Your task to perform on an android device: delete the emails in spam in the gmail app Image 0: 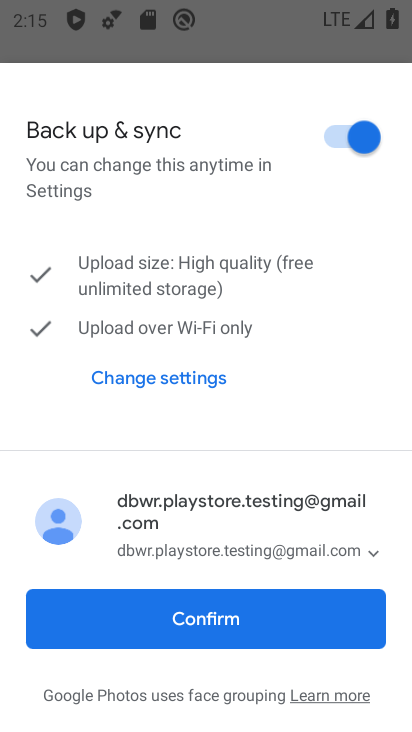
Step 0: press back button
Your task to perform on an android device: delete the emails in spam in the gmail app Image 1: 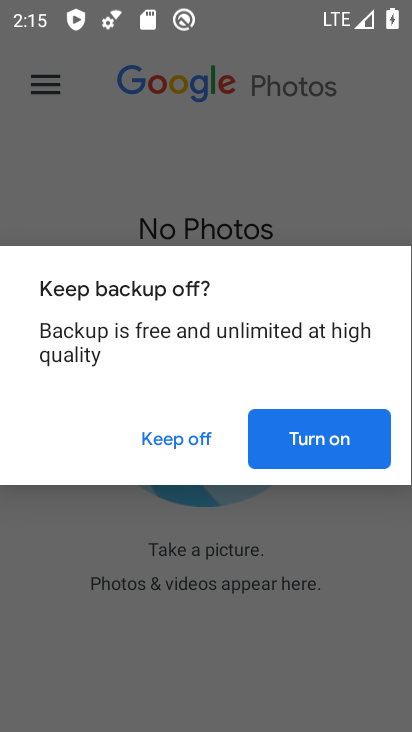
Step 1: press home button
Your task to perform on an android device: delete the emails in spam in the gmail app Image 2: 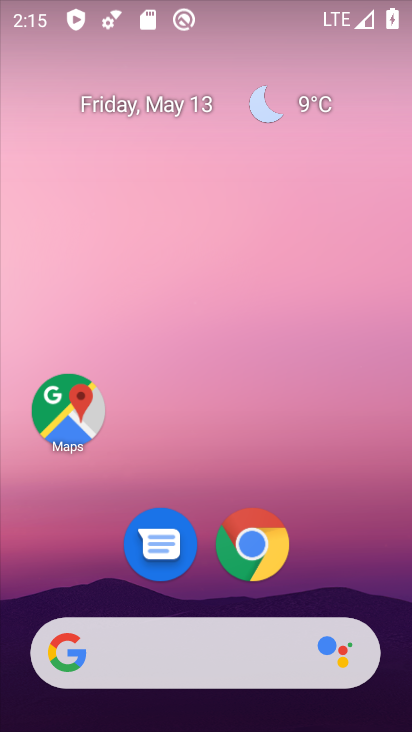
Step 2: drag from (61, 626) to (213, 74)
Your task to perform on an android device: delete the emails in spam in the gmail app Image 3: 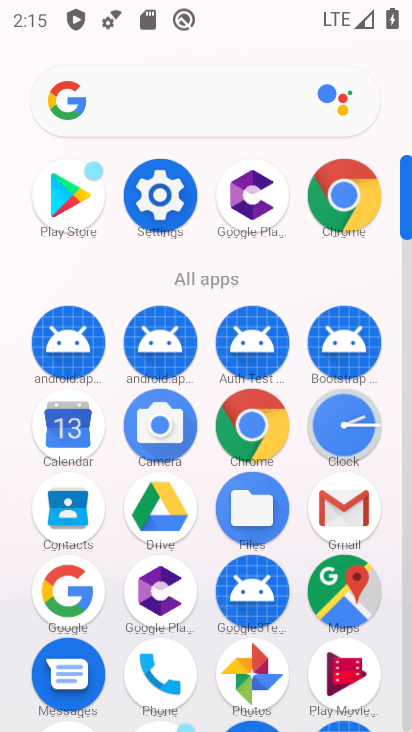
Step 3: click (360, 511)
Your task to perform on an android device: delete the emails in spam in the gmail app Image 4: 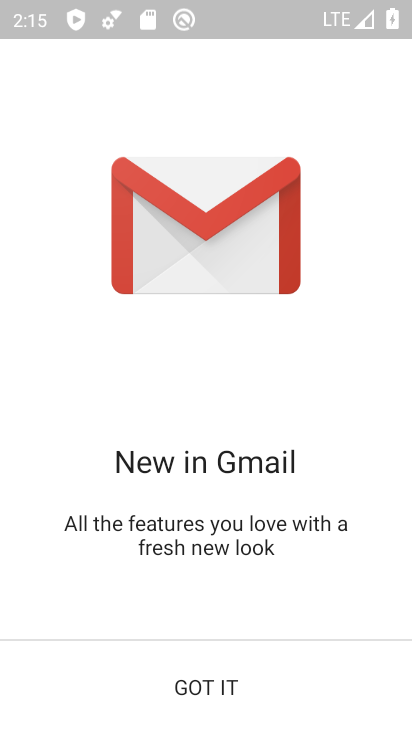
Step 4: click (237, 676)
Your task to perform on an android device: delete the emails in spam in the gmail app Image 5: 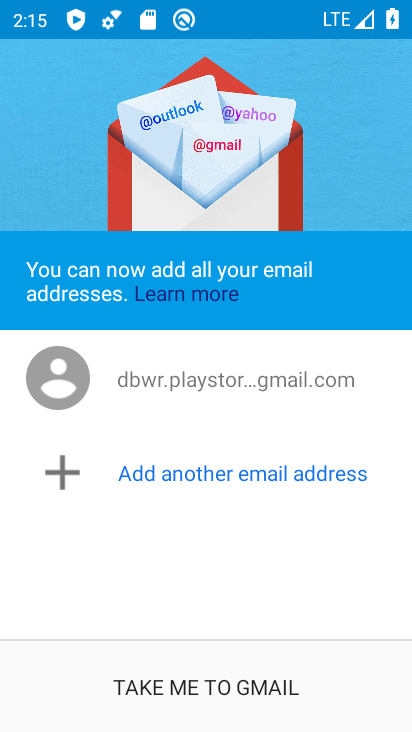
Step 5: click (238, 677)
Your task to perform on an android device: delete the emails in spam in the gmail app Image 6: 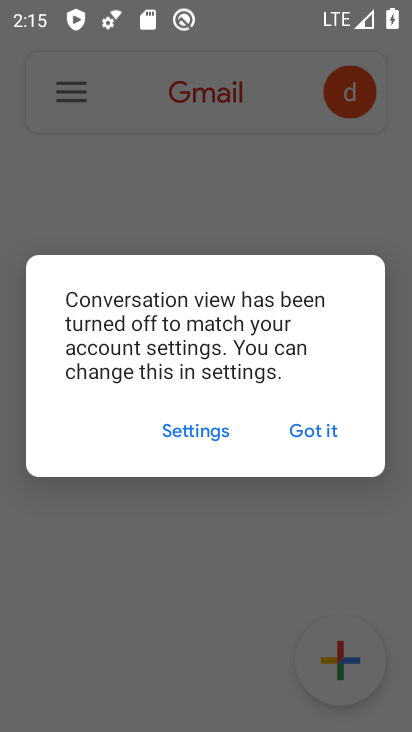
Step 6: click (315, 428)
Your task to perform on an android device: delete the emails in spam in the gmail app Image 7: 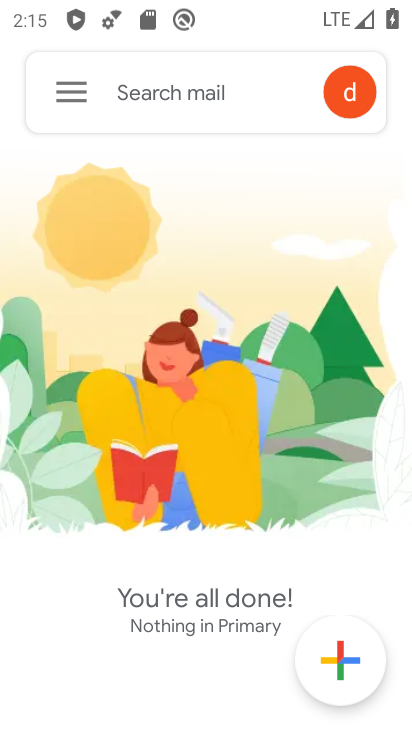
Step 7: click (76, 92)
Your task to perform on an android device: delete the emails in spam in the gmail app Image 8: 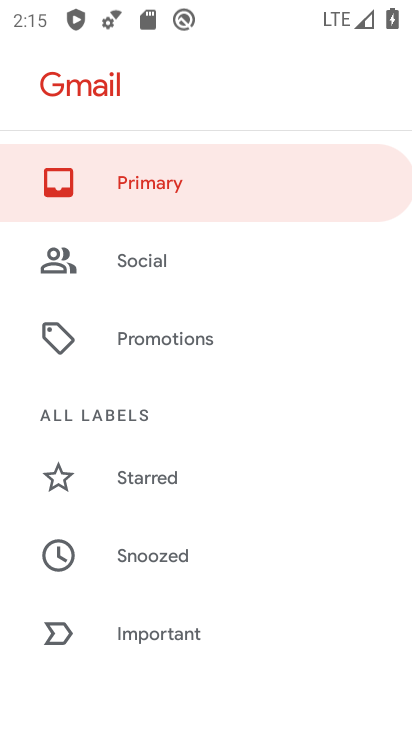
Step 8: drag from (155, 610) to (306, 205)
Your task to perform on an android device: delete the emails in spam in the gmail app Image 9: 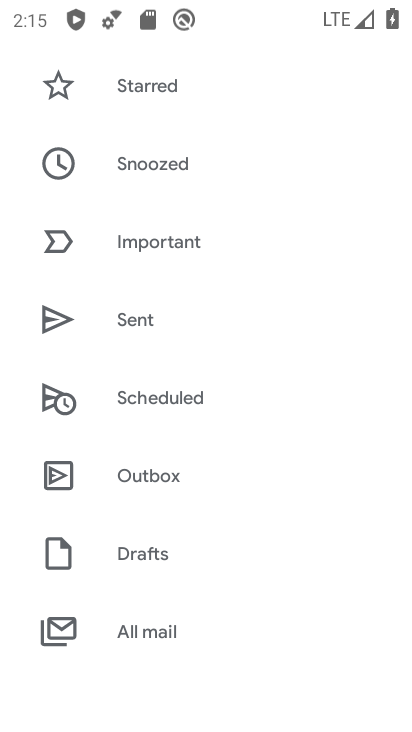
Step 9: drag from (187, 638) to (268, 309)
Your task to perform on an android device: delete the emails in spam in the gmail app Image 10: 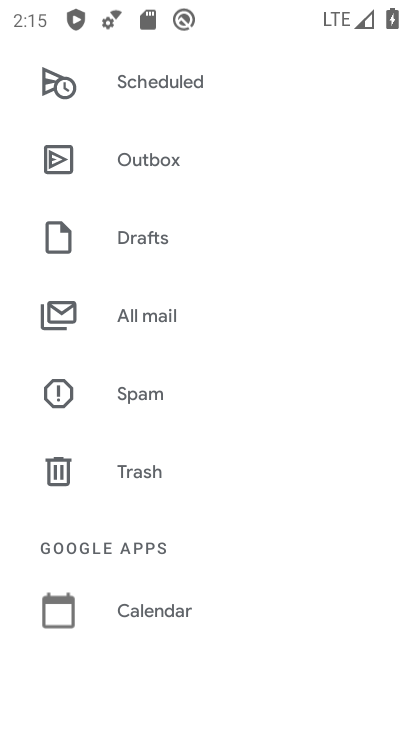
Step 10: click (182, 399)
Your task to perform on an android device: delete the emails in spam in the gmail app Image 11: 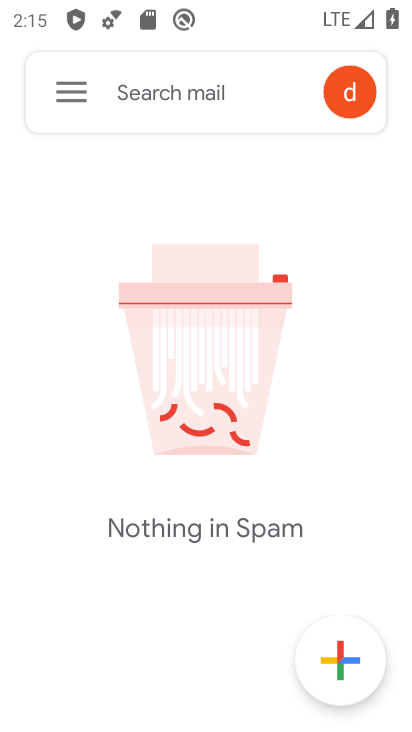
Step 11: task complete